Your task to perform on an android device: toggle sleep mode Image 0: 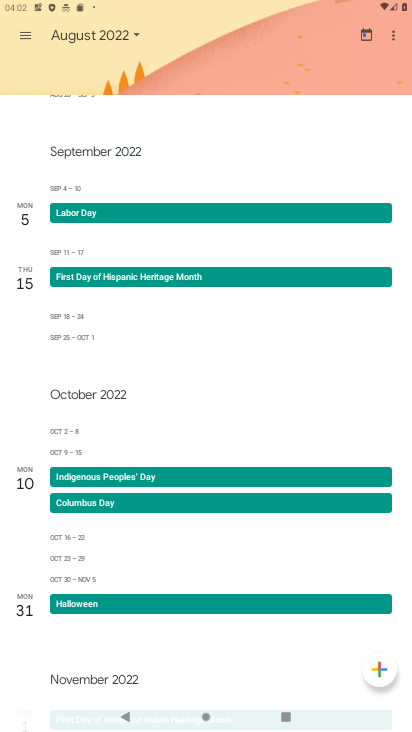
Step 0: press home button
Your task to perform on an android device: toggle sleep mode Image 1: 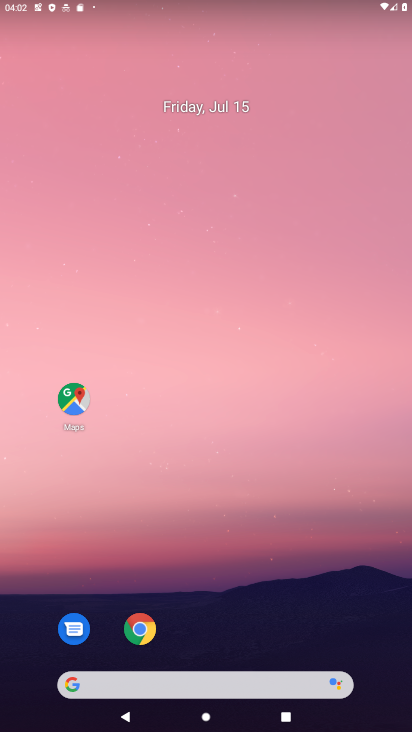
Step 1: drag from (246, 632) to (240, 135)
Your task to perform on an android device: toggle sleep mode Image 2: 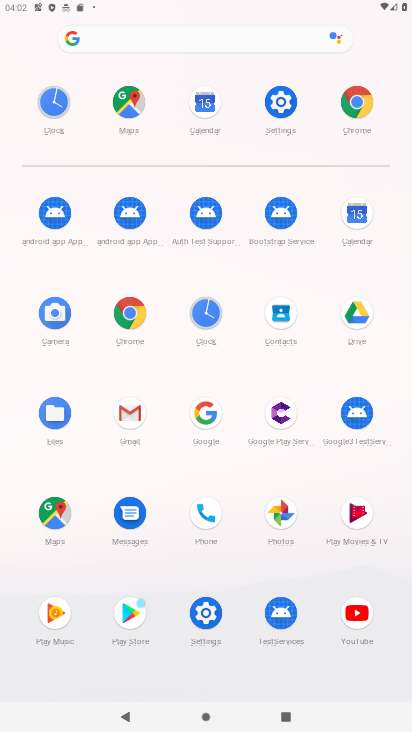
Step 2: click (202, 608)
Your task to perform on an android device: toggle sleep mode Image 3: 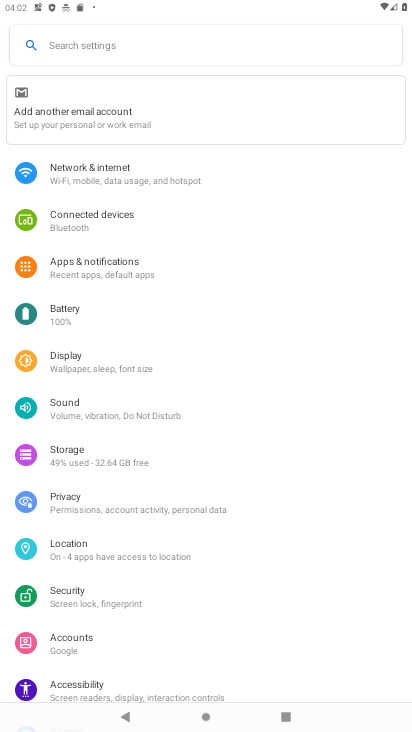
Step 3: click (84, 355)
Your task to perform on an android device: toggle sleep mode Image 4: 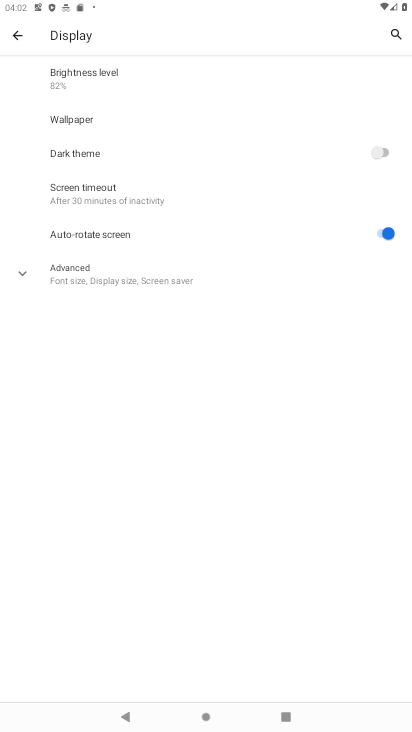
Step 4: click (68, 184)
Your task to perform on an android device: toggle sleep mode Image 5: 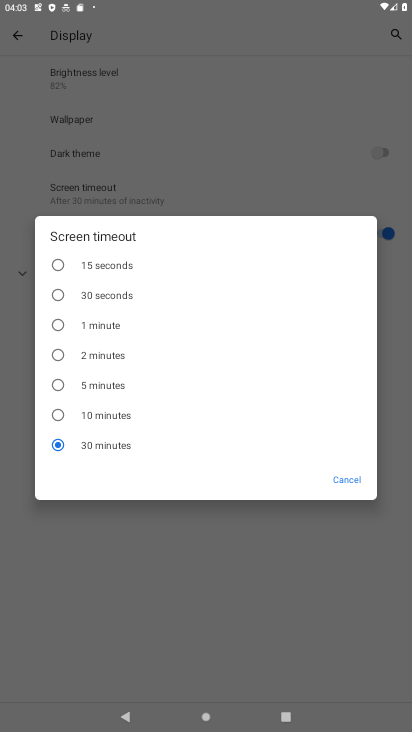
Step 5: click (108, 326)
Your task to perform on an android device: toggle sleep mode Image 6: 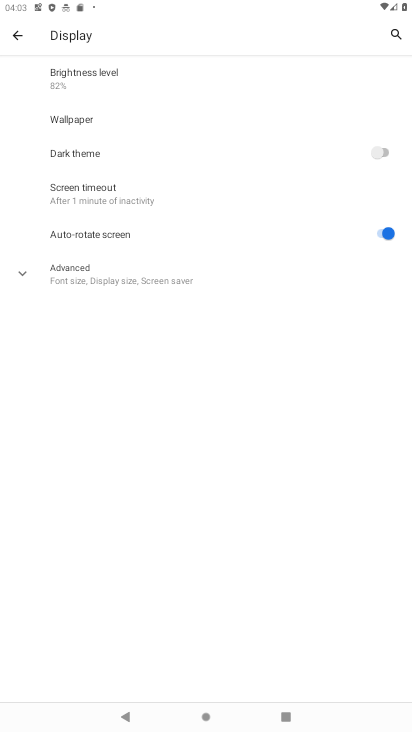
Step 6: task complete